Your task to perform on an android device: change notifications settings Image 0: 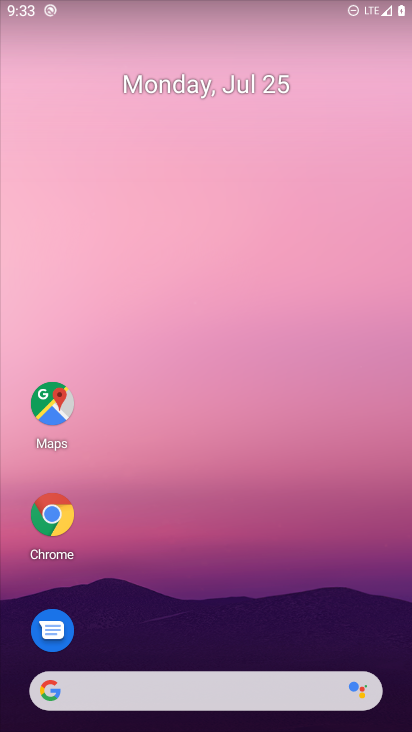
Step 0: drag from (4, 687) to (268, 352)
Your task to perform on an android device: change notifications settings Image 1: 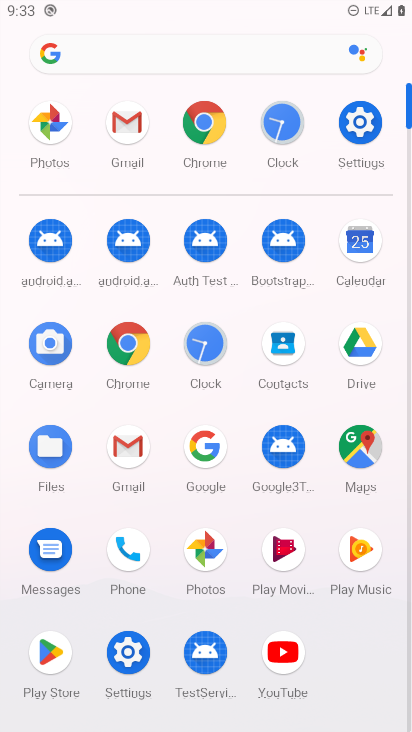
Step 1: click (112, 664)
Your task to perform on an android device: change notifications settings Image 2: 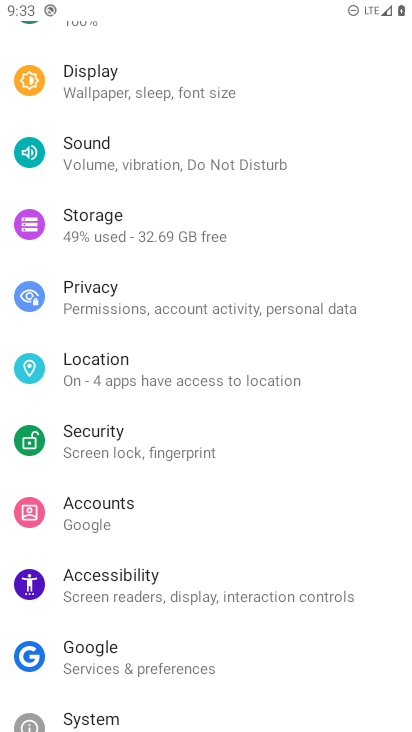
Step 2: drag from (228, 691) to (346, 126)
Your task to perform on an android device: change notifications settings Image 3: 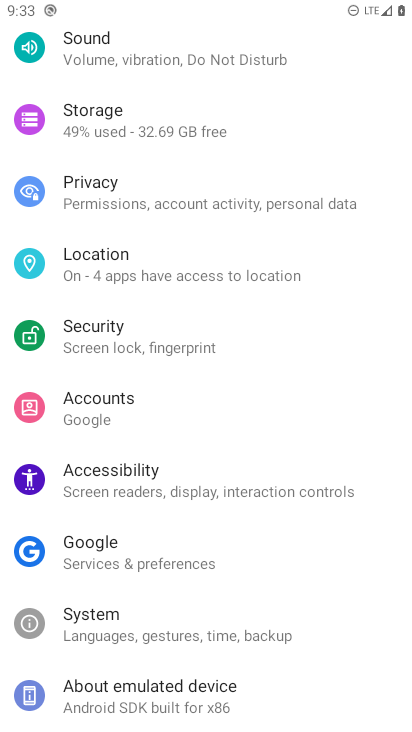
Step 3: drag from (347, 50) to (326, 641)
Your task to perform on an android device: change notifications settings Image 4: 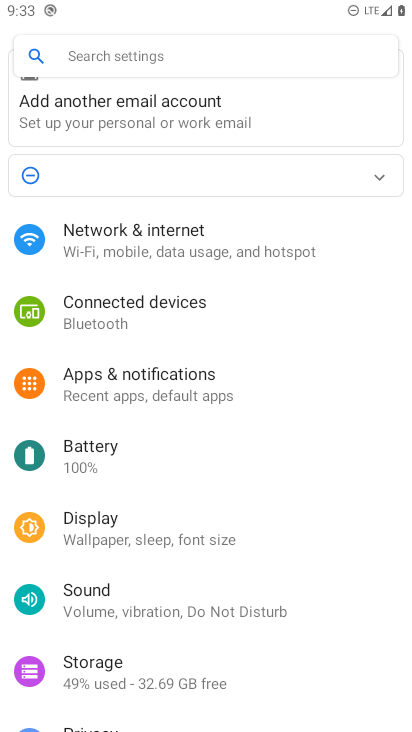
Step 4: click (145, 239)
Your task to perform on an android device: change notifications settings Image 5: 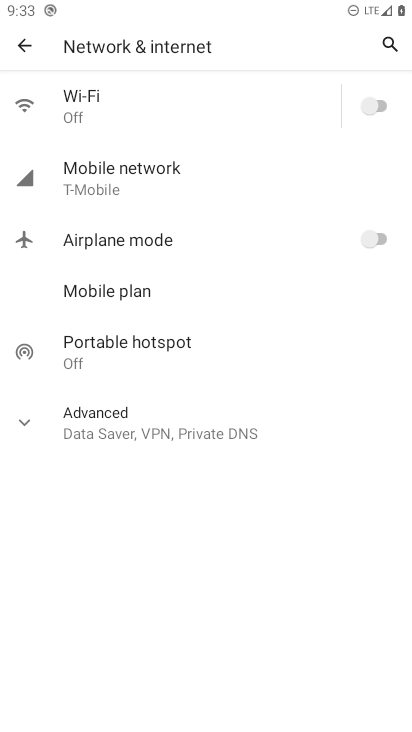
Step 5: click (110, 418)
Your task to perform on an android device: change notifications settings Image 6: 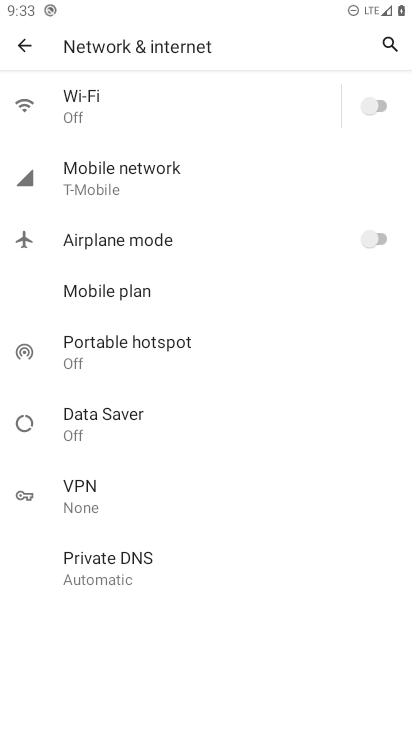
Step 6: task complete